Your task to perform on an android device: Go to Wikipedia Image 0: 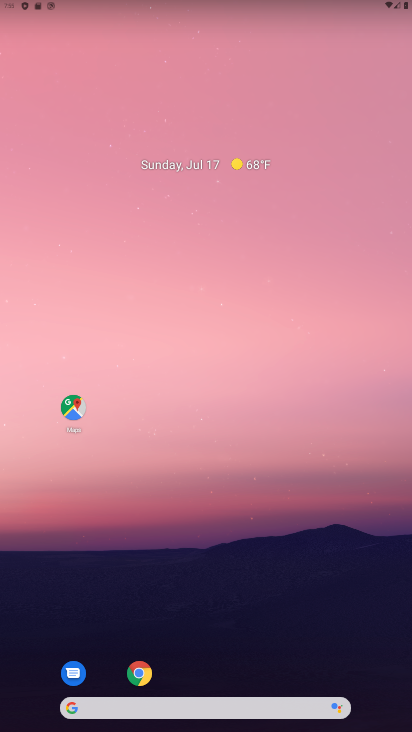
Step 0: drag from (252, 379) to (287, 27)
Your task to perform on an android device: Go to Wikipedia Image 1: 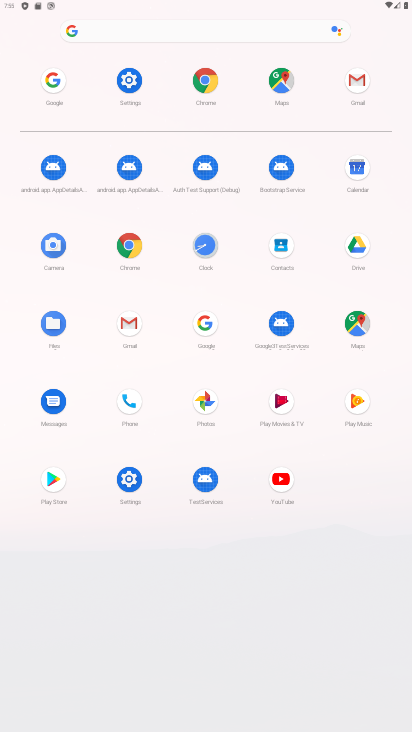
Step 1: click (195, 88)
Your task to perform on an android device: Go to Wikipedia Image 2: 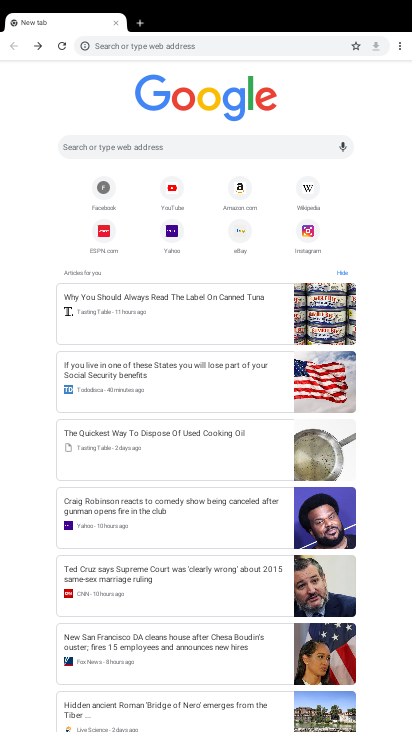
Step 2: click (310, 187)
Your task to perform on an android device: Go to Wikipedia Image 3: 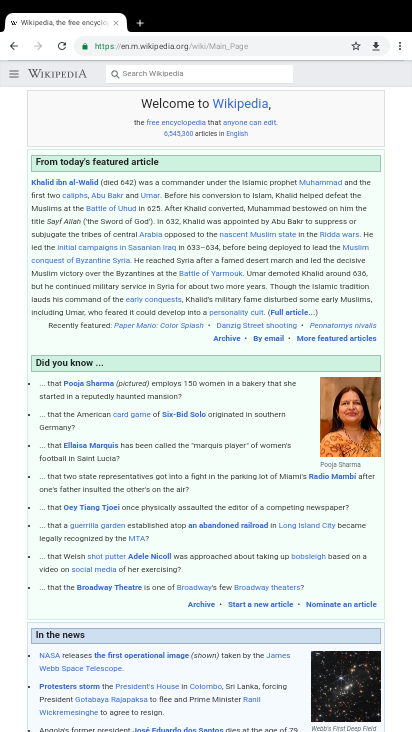
Step 3: task complete